Your task to perform on an android device: Search for vegetarian restaurants on Maps Image 0: 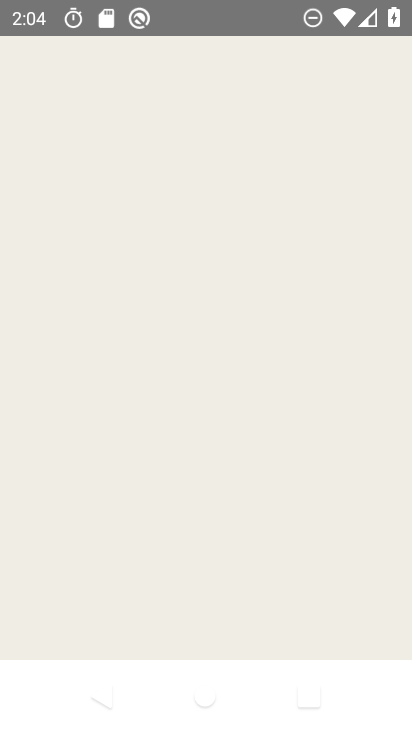
Step 0: click (315, 120)
Your task to perform on an android device: Search for vegetarian restaurants on Maps Image 1: 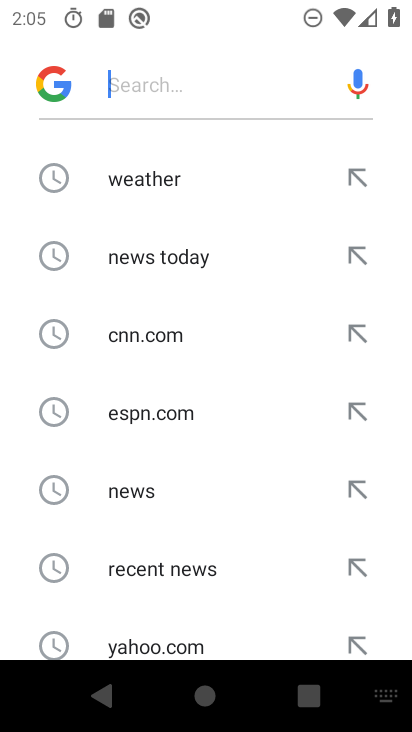
Step 1: click (227, 71)
Your task to perform on an android device: Search for vegetarian restaurants on Maps Image 2: 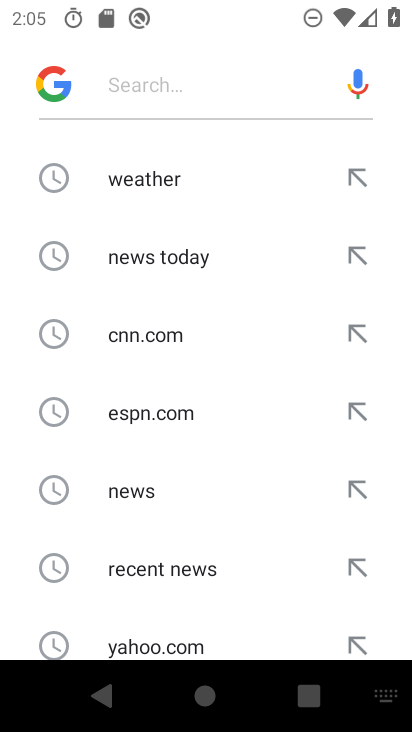
Step 2: type "vegetarian restau"
Your task to perform on an android device: Search for vegetarian restaurants on Maps Image 3: 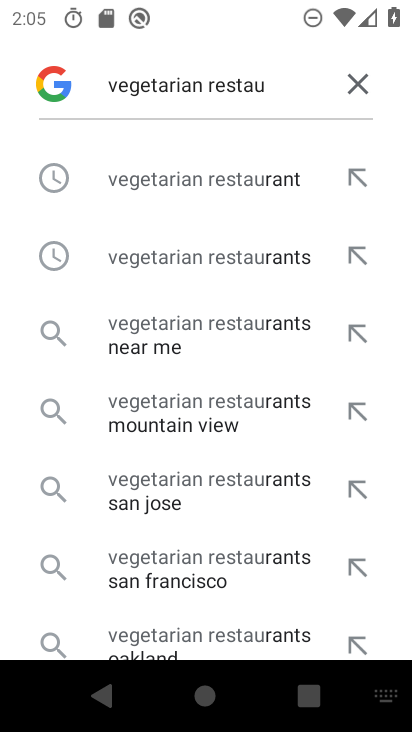
Step 3: click (227, 173)
Your task to perform on an android device: Search for vegetarian restaurants on Maps Image 4: 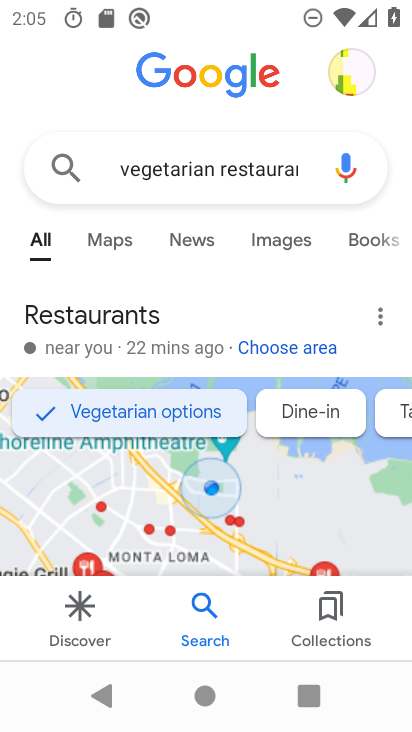
Step 4: task complete